Your task to perform on an android device: turn smart compose on in the gmail app Image 0: 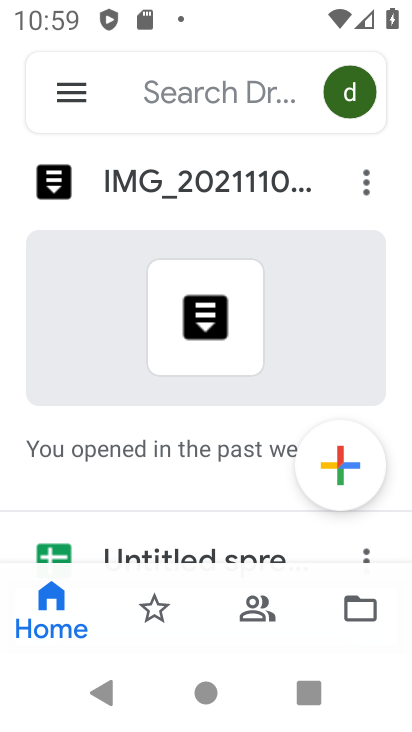
Step 0: press home button
Your task to perform on an android device: turn smart compose on in the gmail app Image 1: 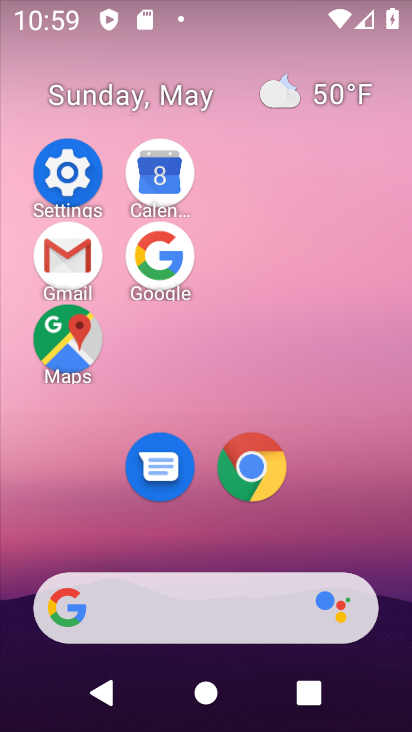
Step 1: click (65, 263)
Your task to perform on an android device: turn smart compose on in the gmail app Image 2: 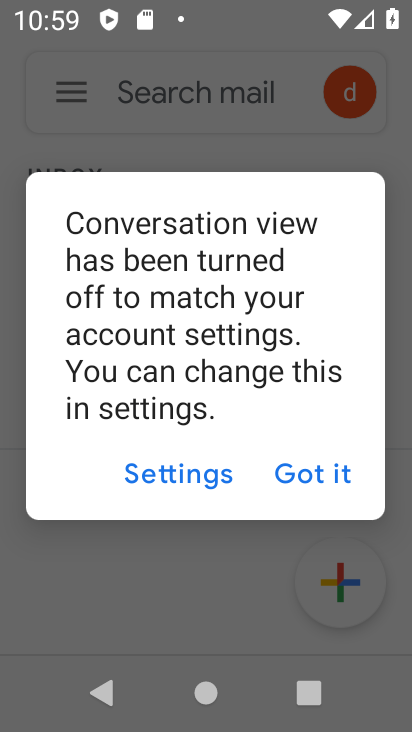
Step 2: click (331, 473)
Your task to perform on an android device: turn smart compose on in the gmail app Image 3: 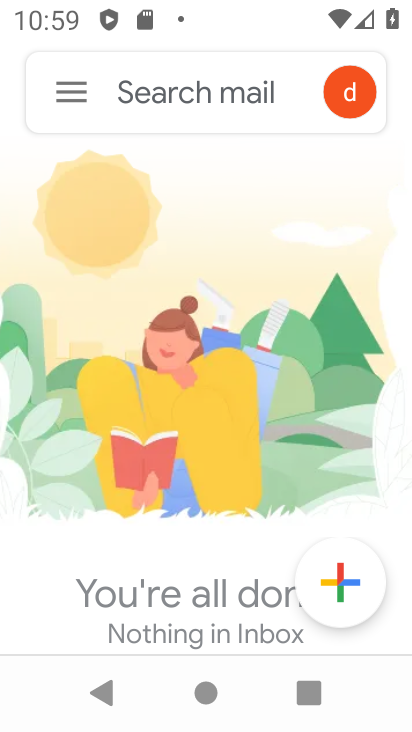
Step 3: click (77, 88)
Your task to perform on an android device: turn smart compose on in the gmail app Image 4: 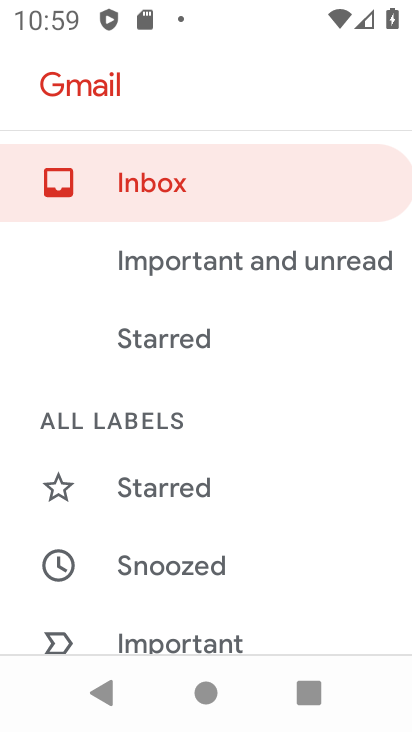
Step 4: drag from (322, 557) to (319, 107)
Your task to perform on an android device: turn smart compose on in the gmail app Image 5: 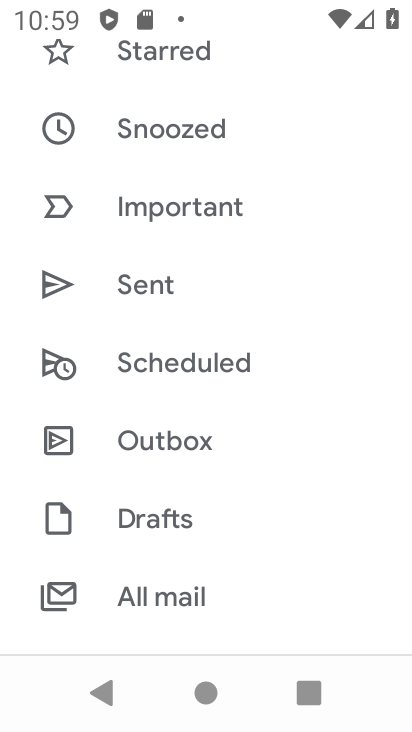
Step 5: drag from (302, 523) to (303, 105)
Your task to perform on an android device: turn smart compose on in the gmail app Image 6: 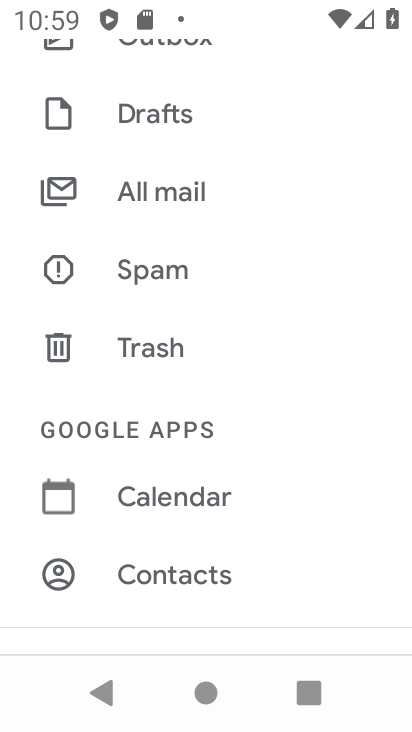
Step 6: drag from (289, 502) to (262, 125)
Your task to perform on an android device: turn smart compose on in the gmail app Image 7: 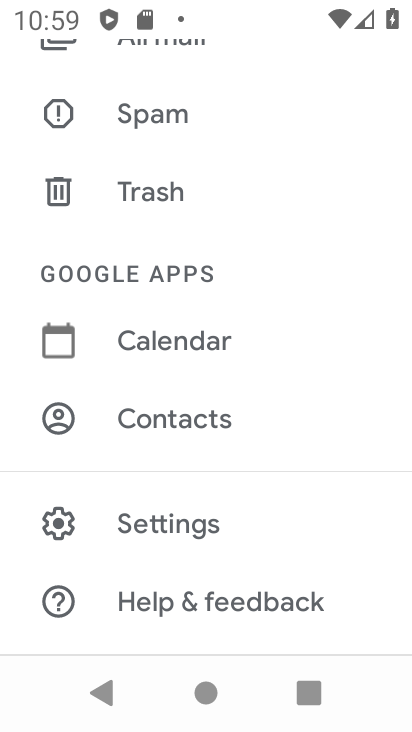
Step 7: click (210, 537)
Your task to perform on an android device: turn smart compose on in the gmail app Image 8: 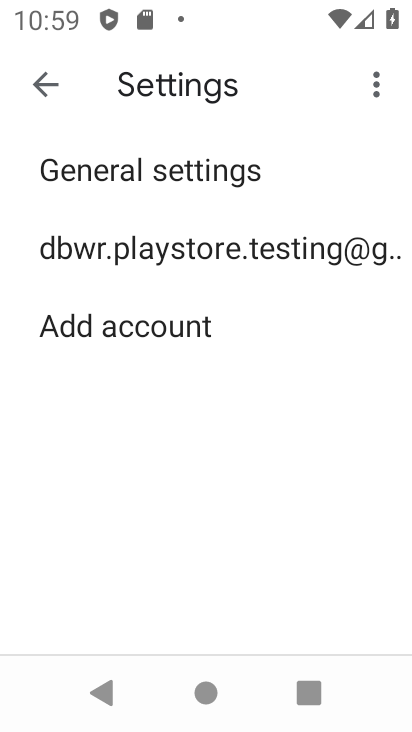
Step 8: click (269, 236)
Your task to perform on an android device: turn smart compose on in the gmail app Image 9: 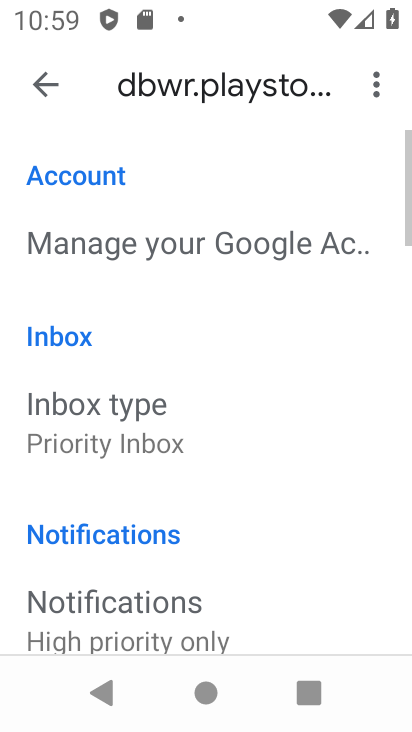
Step 9: task complete